Your task to perform on an android device: move an email to a new category in the gmail app Image 0: 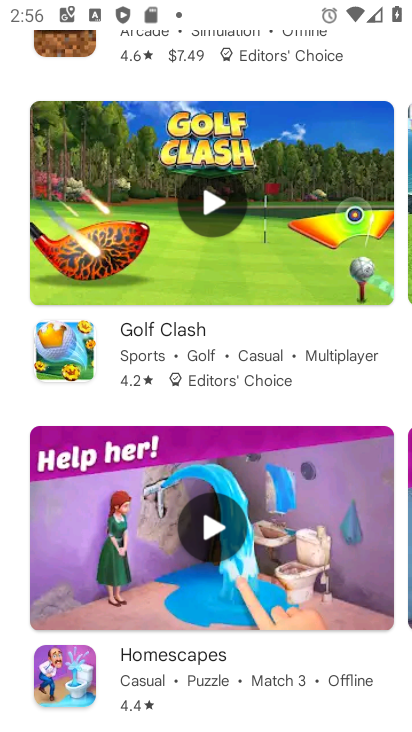
Step 0: drag from (302, 393) to (301, 2)
Your task to perform on an android device: move an email to a new category in the gmail app Image 1: 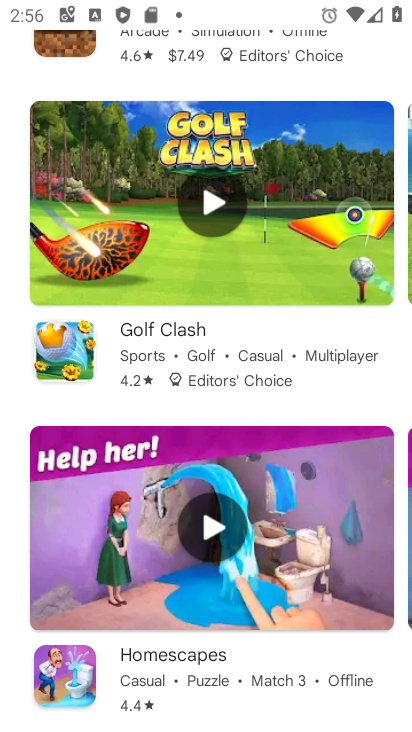
Step 1: drag from (222, 78) to (286, 589)
Your task to perform on an android device: move an email to a new category in the gmail app Image 2: 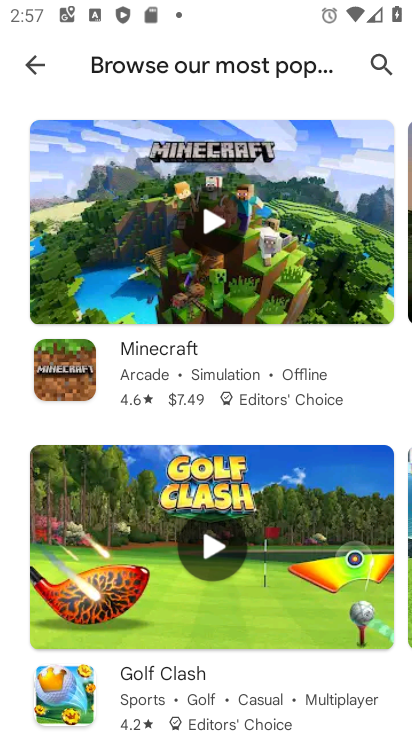
Step 2: press home button
Your task to perform on an android device: move an email to a new category in the gmail app Image 3: 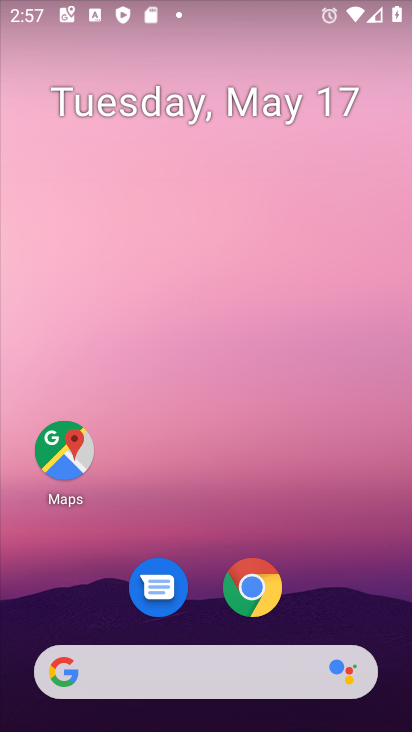
Step 3: drag from (206, 616) to (234, 74)
Your task to perform on an android device: move an email to a new category in the gmail app Image 4: 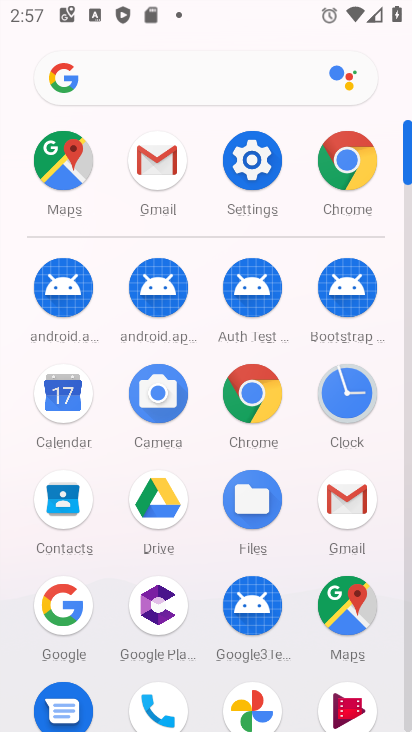
Step 4: click (337, 494)
Your task to perform on an android device: move an email to a new category in the gmail app Image 5: 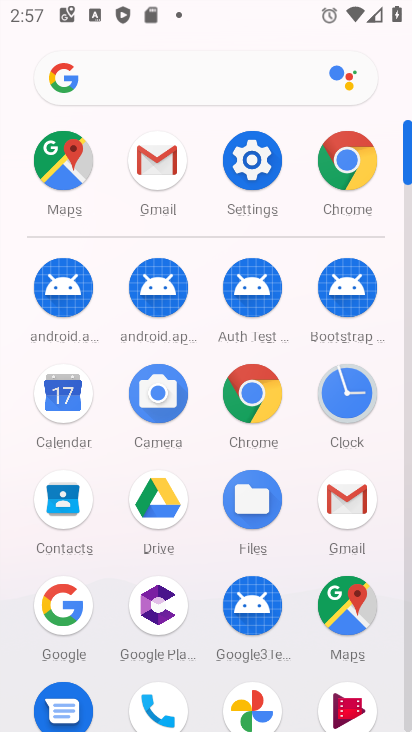
Step 5: click (337, 494)
Your task to perform on an android device: move an email to a new category in the gmail app Image 6: 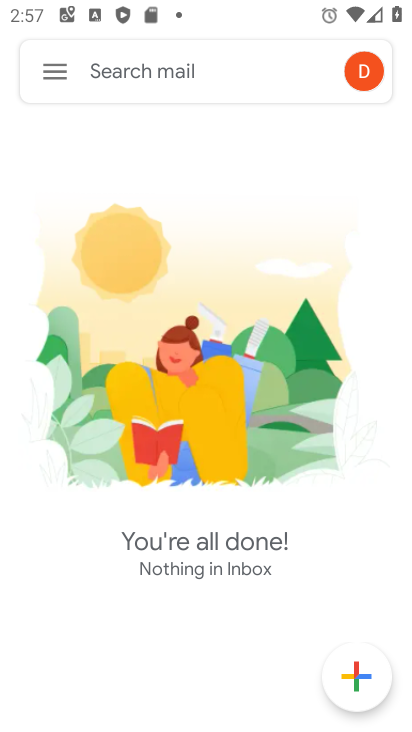
Step 6: click (48, 60)
Your task to perform on an android device: move an email to a new category in the gmail app Image 7: 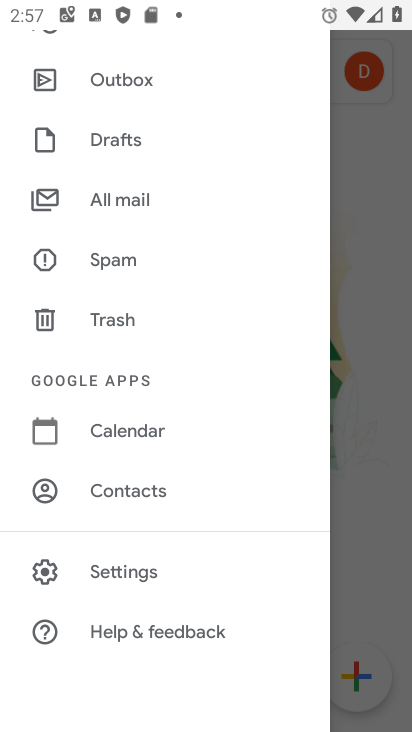
Step 7: drag from (139, 557) to (145, 163)
Your task to perform on an android device: move an email to a new category in the gmail app Image 8: 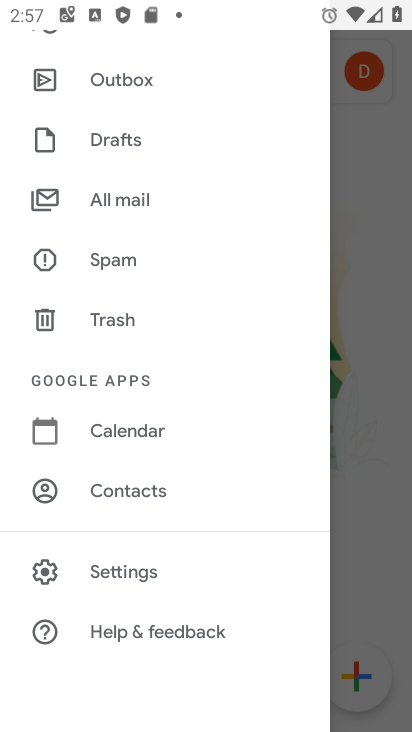
Step 8: drag from (138, 574) to (144, 188)
Your task to perform on an android device: move an email to a new category in the gmail app Image 9: 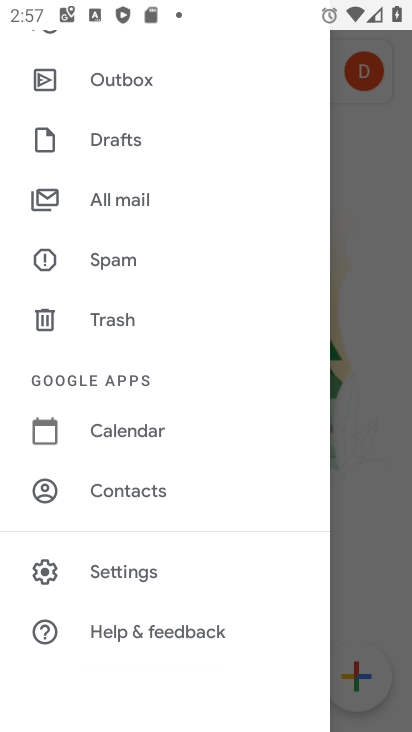
Step 9: drag from (144, 169) to (217, 97)
Your task to perform on an android device: move an email to a new category in the gmail app Image 10: 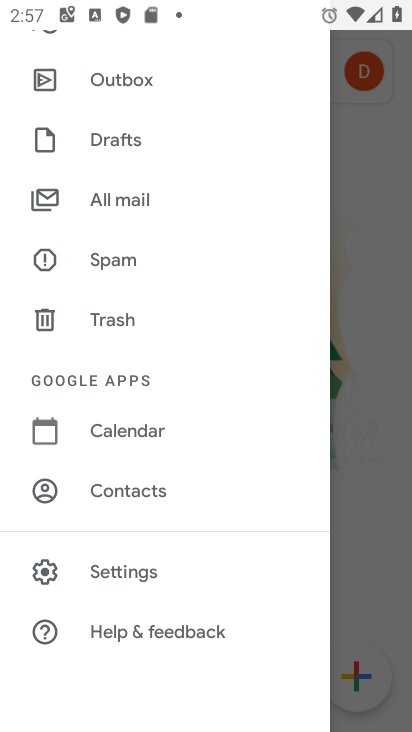
Step 10: click (139, 70)
Your task to perform on an android device: move an email to a new category in the gmail app Image 11: 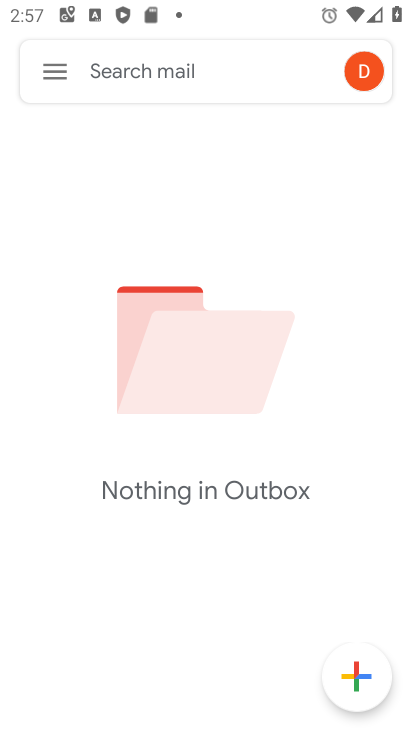
Step 11: task complete